Your task to perform on an android device: open wifi settings Image 0: 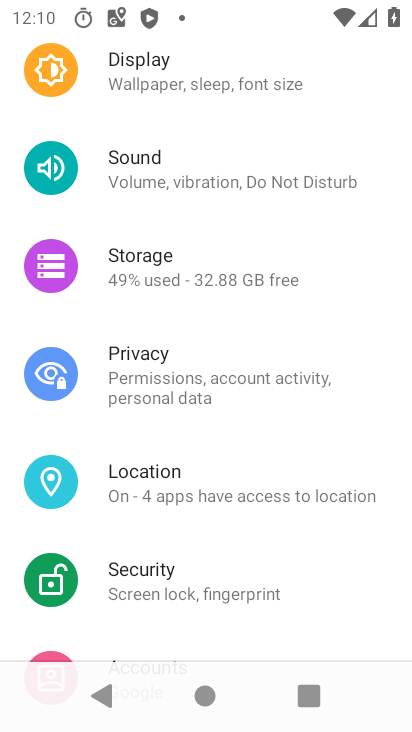
Step 0: drag from (253, 289) to (221, 597)
Your task to perform on an android device: open wifi settings Image 1: 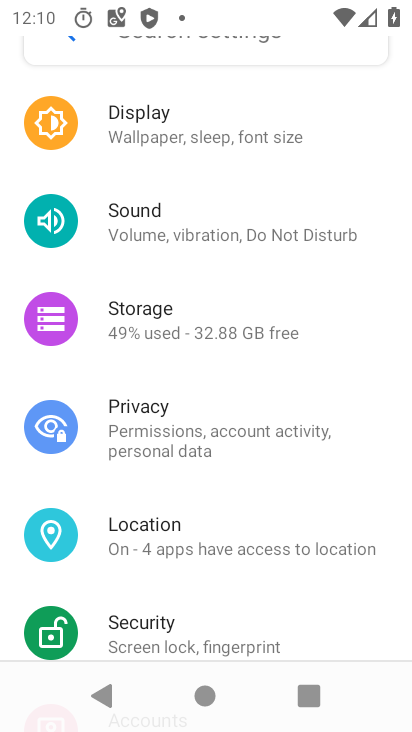
Step 1: drag from (225, 141) to (232, 600)
Your task to perform on an android device: open wifi settings Image 2: 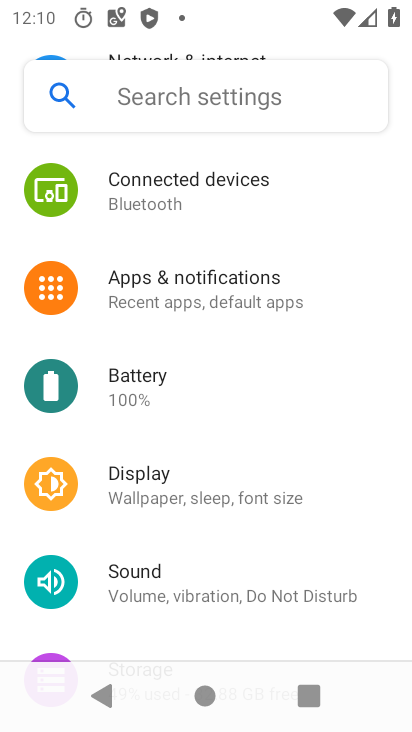
Step 2: drag from (268, 178) to (284, 622)
Your task to perform on an android device: open wifi settings Image 3: 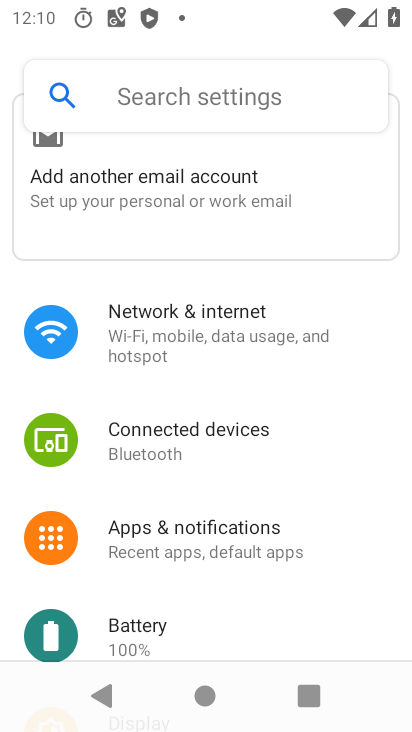
Step 3: click (241, 346)
Your task to perform on an android device: open wifi settings Image 4: 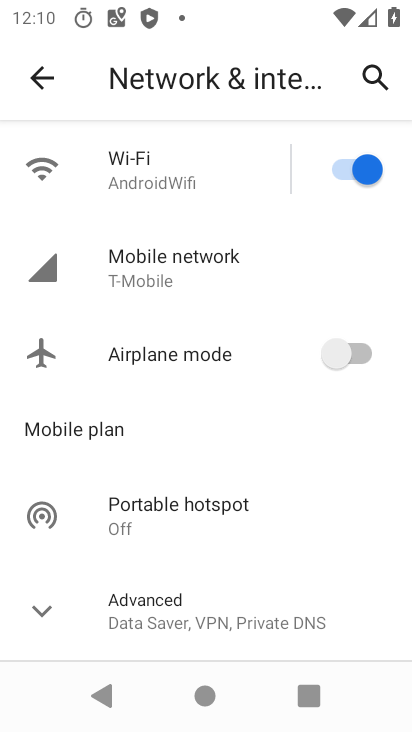
Step 4: click (166, 194)
Your task to perform on an android device: open wifi settings Image 5: 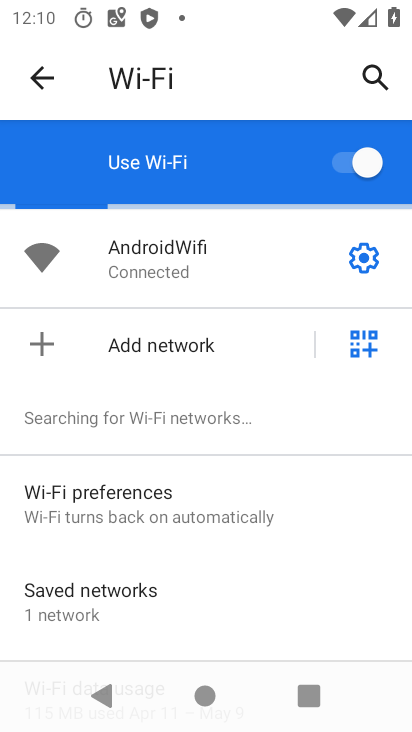
Step 5: task complete